Your task to perform on an android device: open a new tab in the chrome app Image 0: 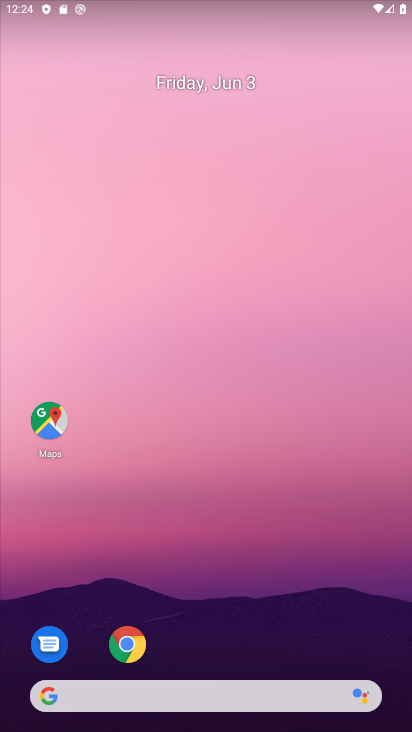
Step 0: click (136, 647)
Your task to perform on an android device: open a new tab in the chrome app Image 1: 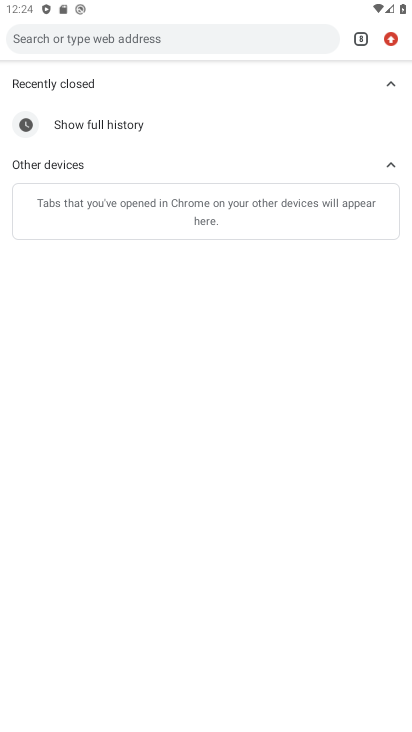
Step 1: click (393, 45)
Your task to perform on an android device: open a new tab in the chrome app Image 2: 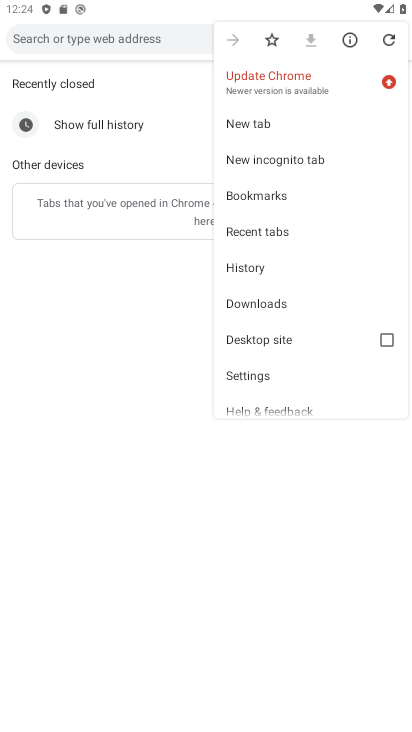
Step 2: click (246, 122)
Your task to perform on an android device: open a new tab in the chrome app Image 3: 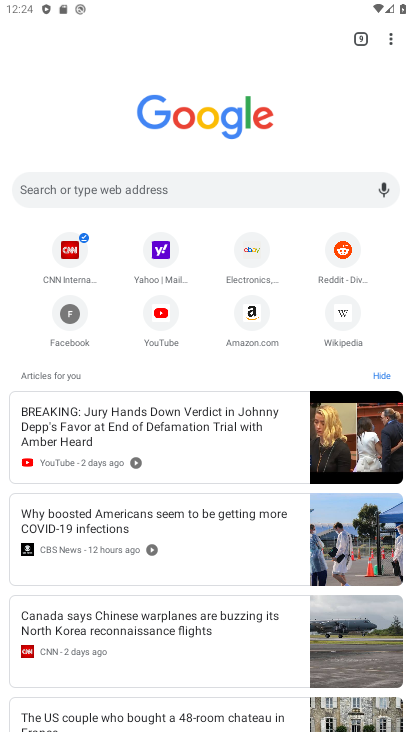
Step 3: task complete